Your task to perform on an android device: Go to Maps Image 0: 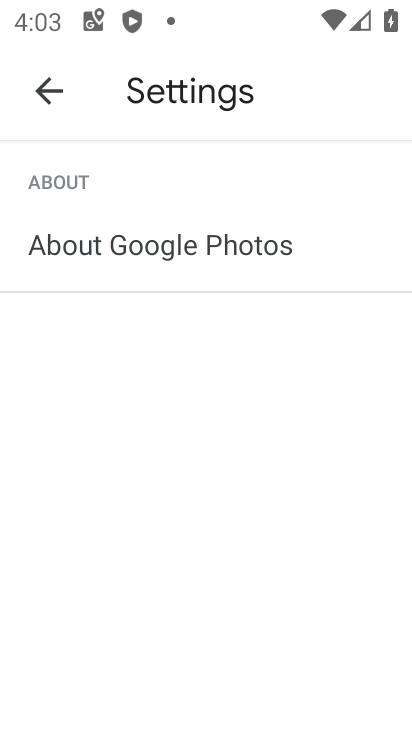
Step 0: press home button
Your task to perform on an android device: Go to Maps Image 1: 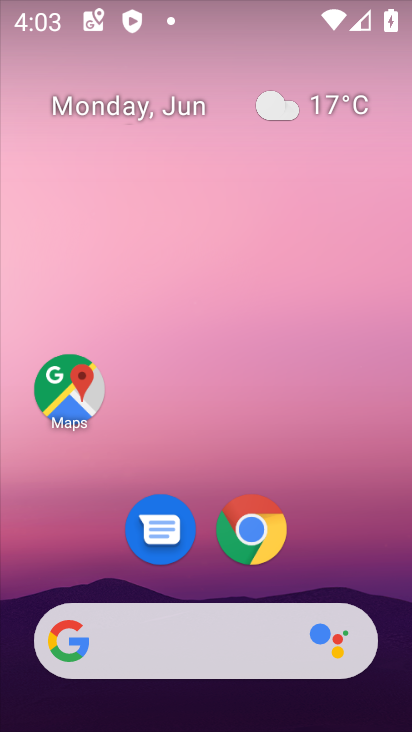
Step 1: click (69, 390)
Your task to perform on an android device: Go to Maps Image 2: 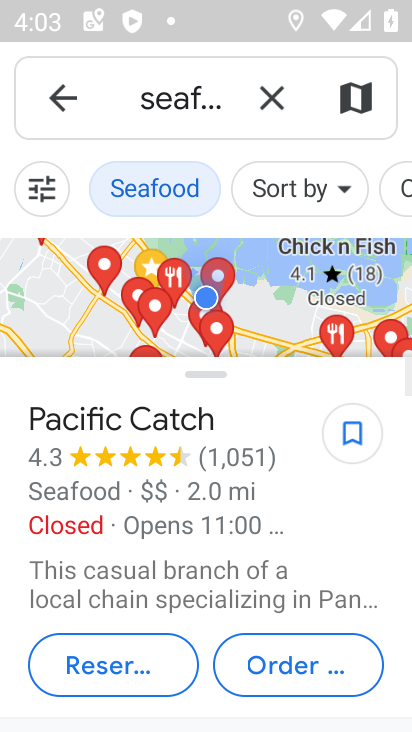
Step 2: click (272, 95)
Your task to perform on an android device: Go to Maps Image 3: 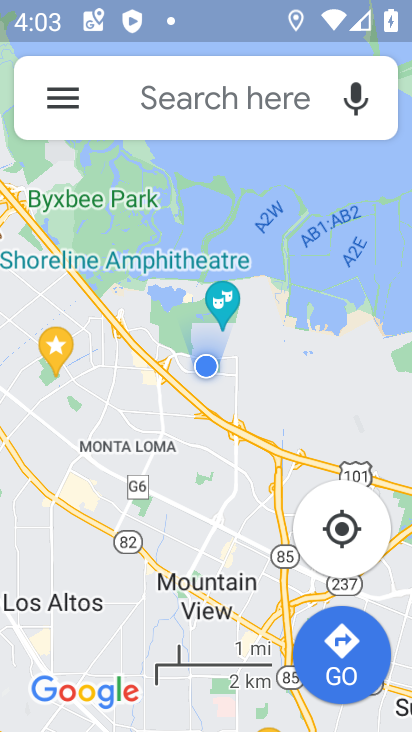
Step 3: task complete